Your task to perform on an android device: Open settings Image 0: 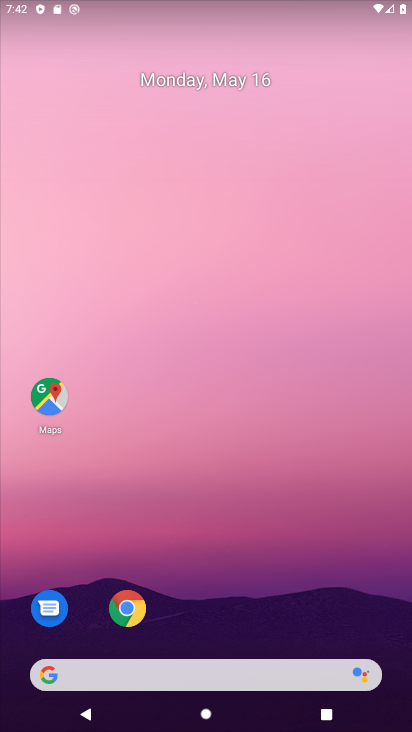
Step 0: drag from (25, 641) to (296, 65)
Your task to perform on an android device: Open settings Image 1: 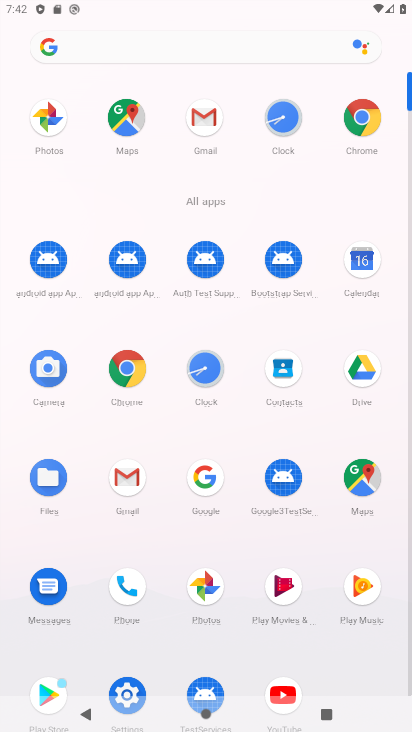
Step 1: click (137, 681)
Your task to perform on an android device: Open settings Image 2: 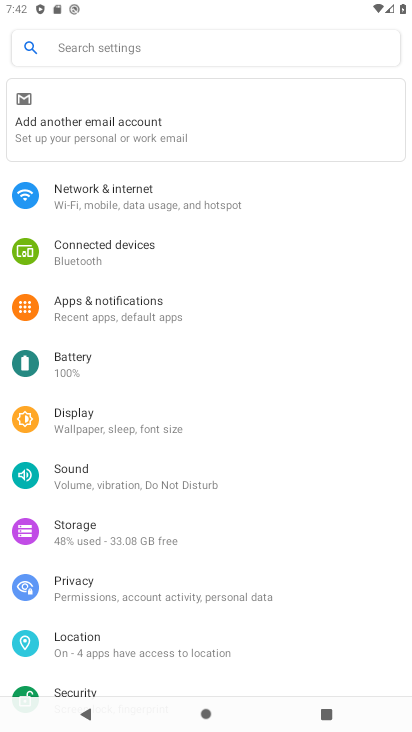
Step 2: task complete